Your task to perform on an android device: What is the news today? Image 0: 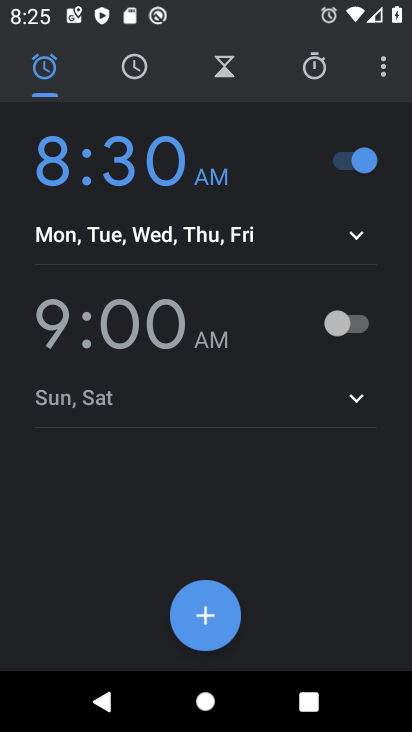
Step 0: press home button
Your task to perform on an android device: What is the news today? Image 1: 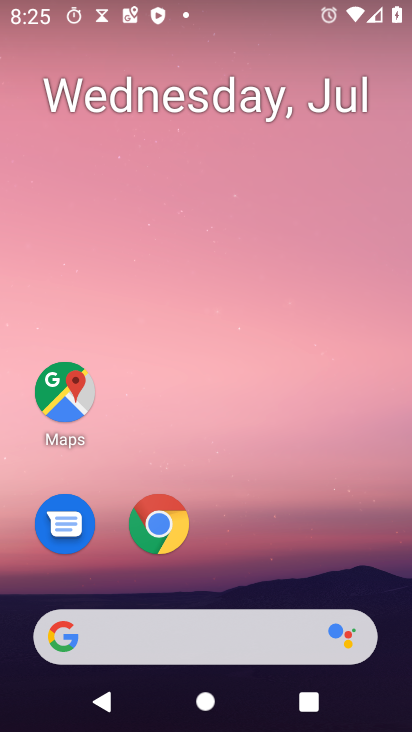
Step 1: click (149, 632)
Your task to perform on an android device: What is the news today? Image 2: 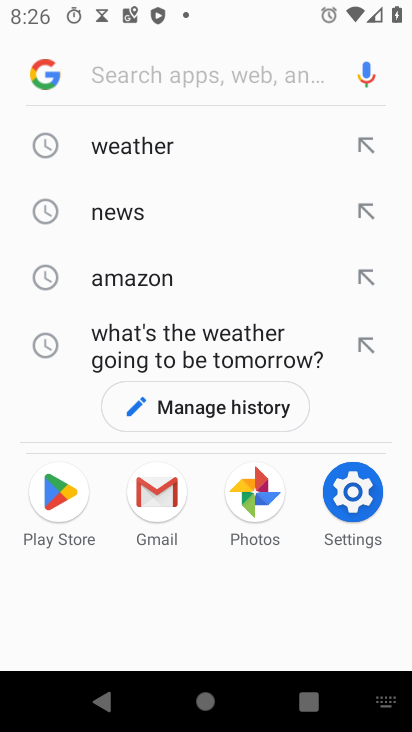
Step 2: click (117, 212)
Your task to perform on an android device: What is the news today? Image 3: 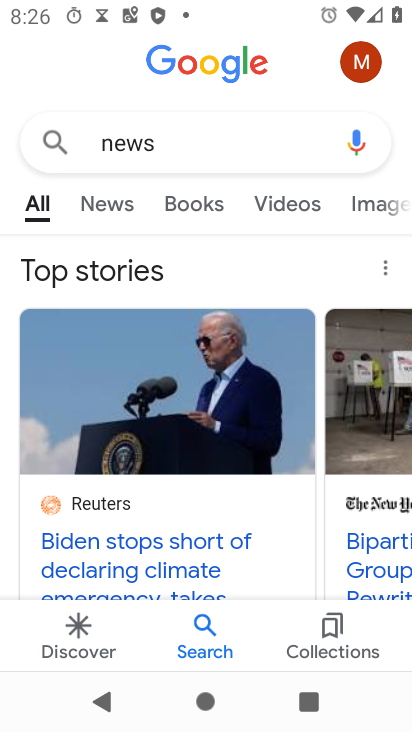
Step 3: click (117, 210)
Your task to perform on an android device: What is the news today? Image 4: 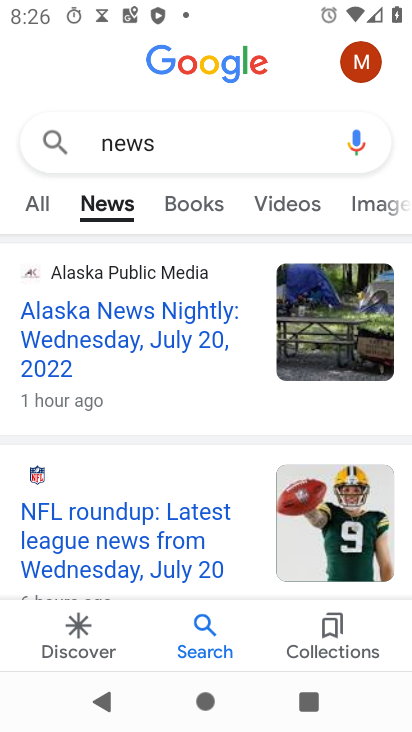
Step 4: task complete